Your task to perform on an android device: find snoozed emails in the gmail app Image 0: 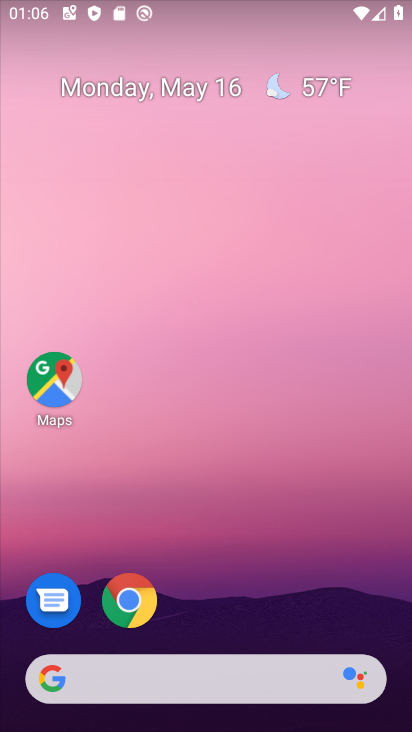
Step 0: drag from (216, 617) to (266, 138)
Your task to perform on an android device: find snoozed emails in the gmail app Image 1: 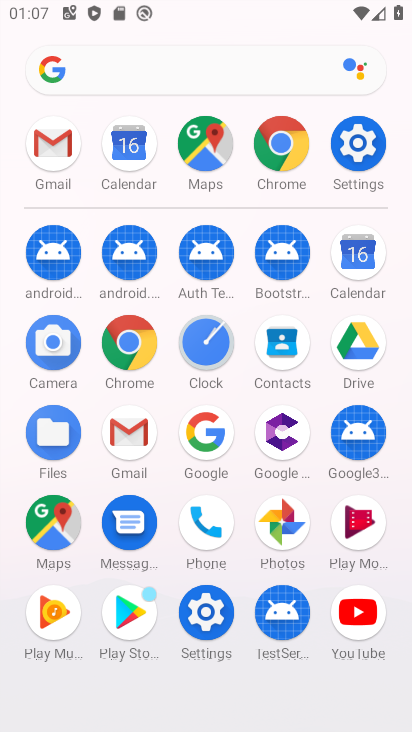
Step 1: click (136, 435)
Your task to perform on an android device: find snoozed emails in the gmail app Image 2: 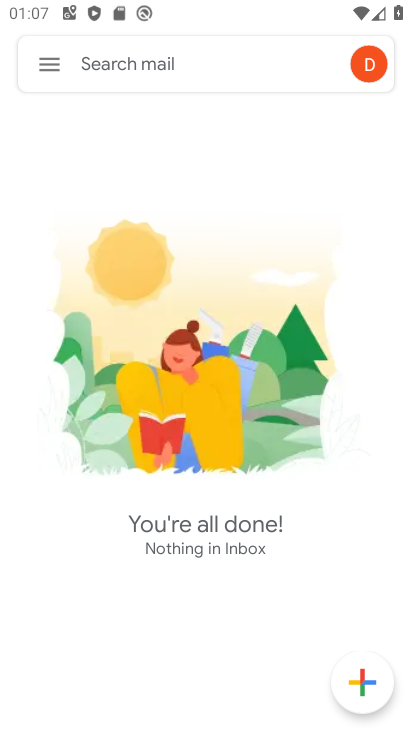
Step 2: click (50, 61)
Your task to perform on an android device: find snoozed emails in the gmail app Image 3: 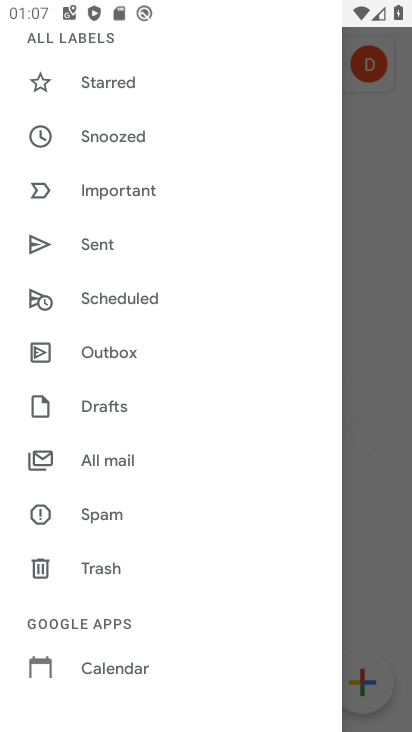
Step 3: click (116, 130)
Your task to perform on an android device: find snoozed emails in the gmail app Image 4: 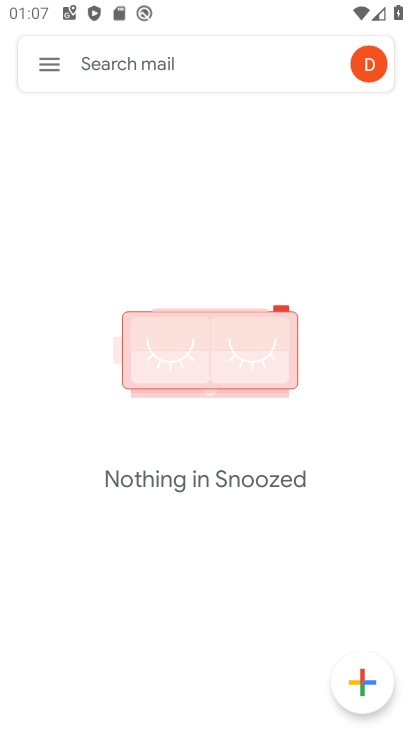
Step 4: task complete